Your task to perform on an android device: change the clock display to analog Image 0: 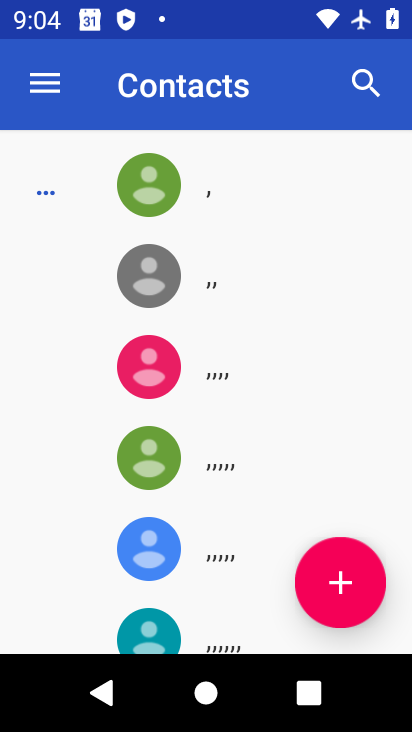
Step 0: press home button
Your task to perform on an android device: change the clock display to analog Image 1: 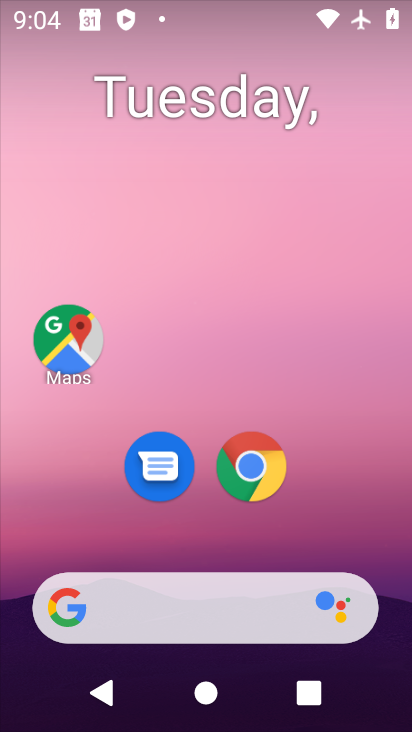
Step 1: drag from (321, 532) to (286, 131)
Your task to perform on an android device: change the clock display to analog Image 2: 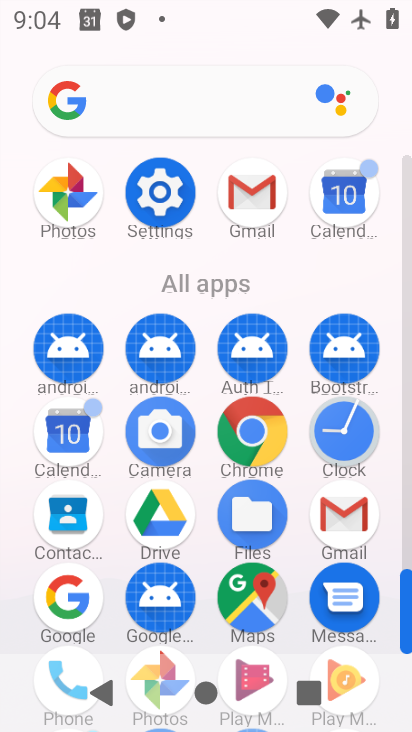
Step 2: click (340, 426)
Your task to perform on an android device: change the clock display to analog Image 3: 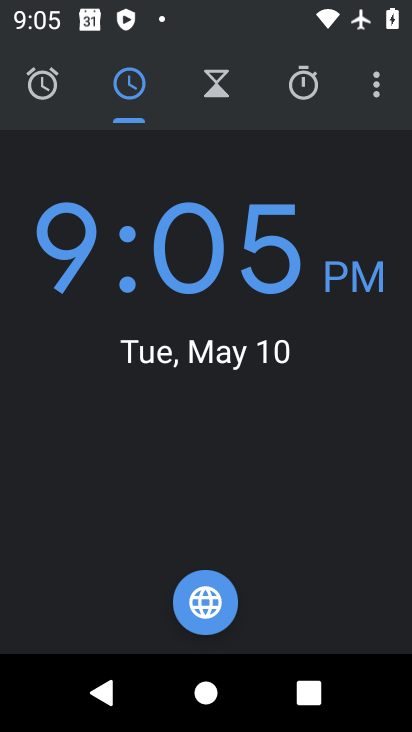
Step 3: click (372, 77)
Your task to perform on an android device: change the clock display to analog Image 4: 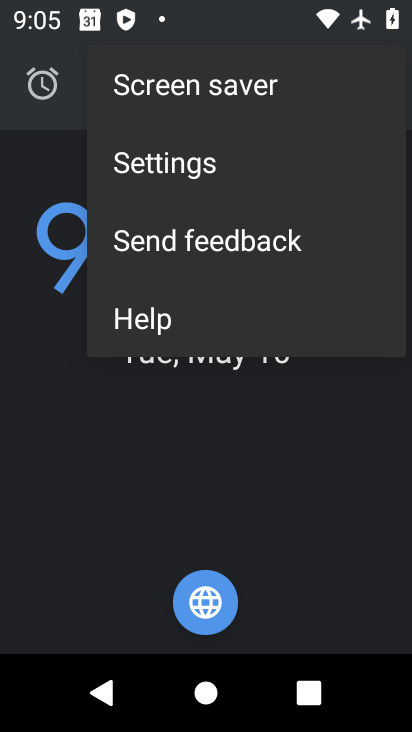
Step 4: click (174, 147)
Your task to perform on an android device: change the clock display to analog Image 5: 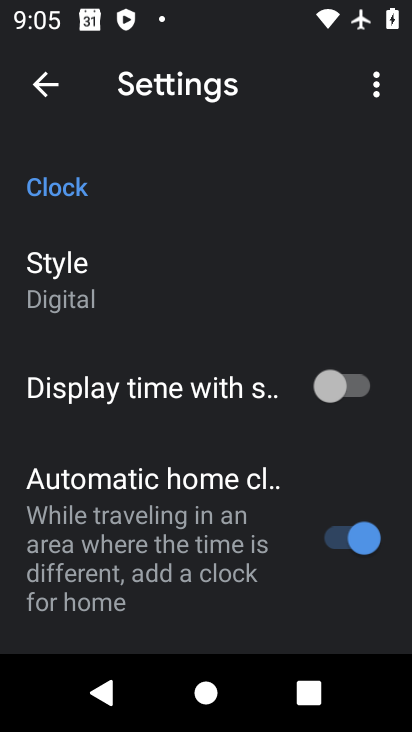
Step 5: click (58, 287)
Your task to perform on an android device: change the clock display to analog Image 6: 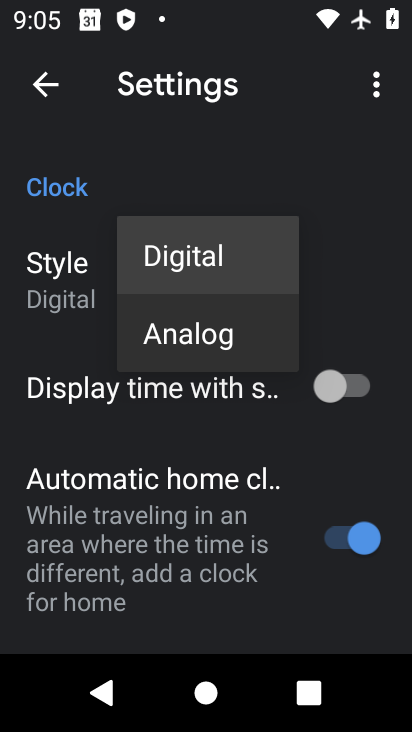
Step 6: click (212, 359)
Your task to perform on an android device: change the clock display to analog Image 7: 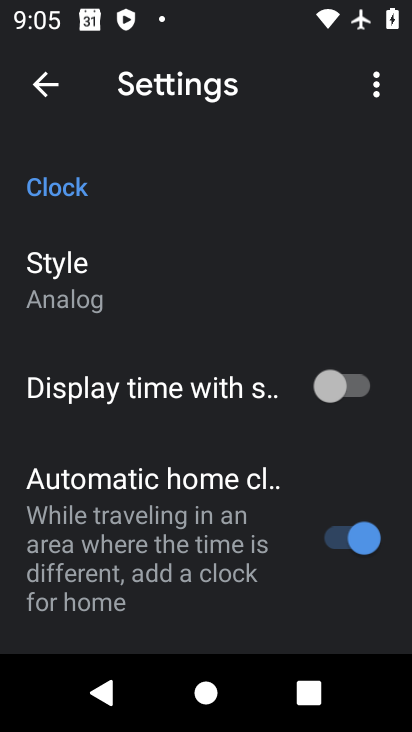
Step 7: task complete